Your task to perform on an android device: Forward the most recent email from tau.zachbrennan.1654798856748@gmail.com to: tau.kellybrennan.1654798856748@gmail.com. Image 0: 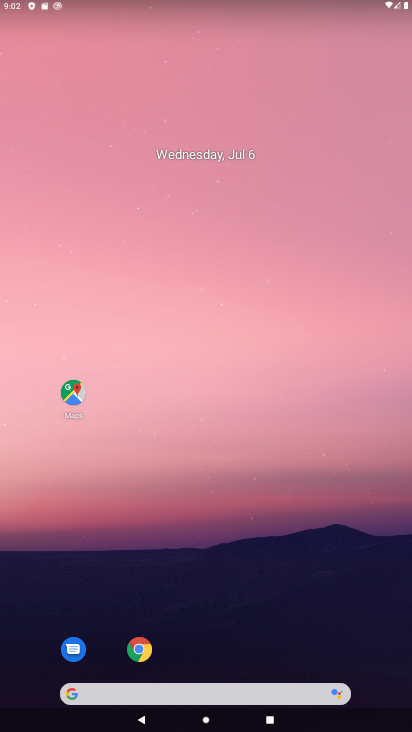
Step 0: press home button
Your task to perform on an android device: Forward the most recent email from tau.zachbrennan.1654798856748@gmail.com to: tau.kellybrennan.1654798856748@gmail.com. Image 1: 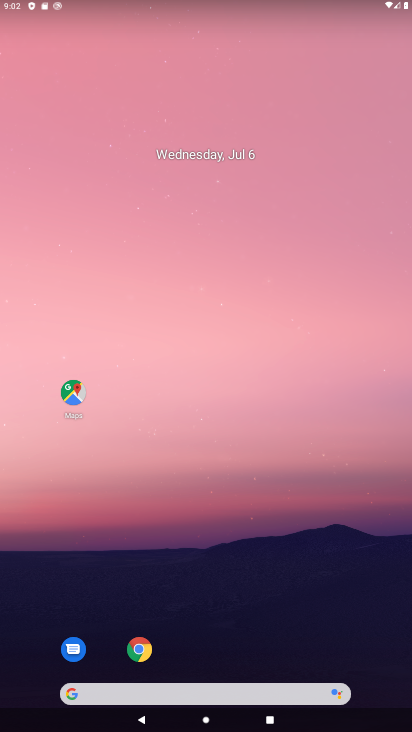
Step 1: drag from (350, 585) to (291, 315)
Your task to perform on an android device: Forward the most recent email from tau.zachbrennan.1654798856748@gmail.com to: tau.kellybrennan.1654798856748@gmail.com. Image 2: 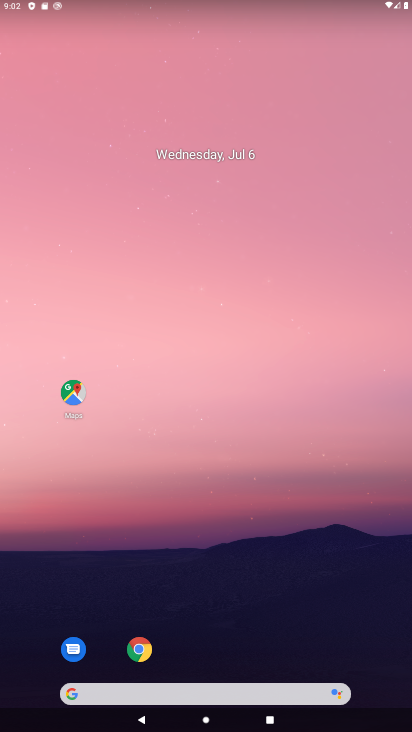
Step 2: drag from (379, 655) to (297, 140)
Your task to perform on an android device: Forward the most recent email from tau.zachbrennan.1654798856748@gmail.com to: tau.kellybrennan.1654798856748@gmail.com. Image 3: 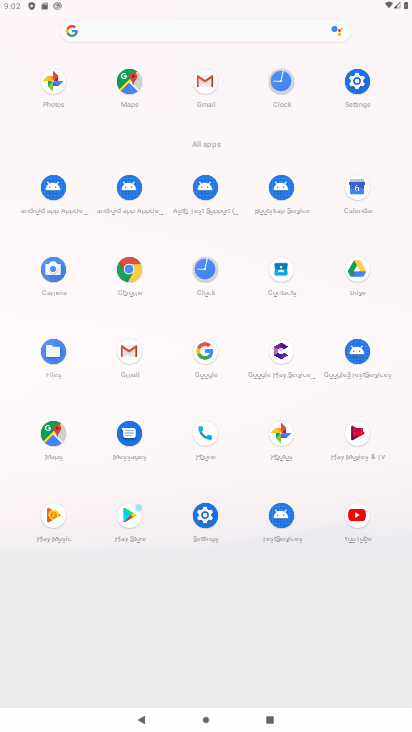
Step 3: click (205, 97)
Your task to perform on an android device: Forward the most recent email from tau.zachbrennan.1654798856748@gmail.com to: tau.kellybrennan.1654798856748@gmail.com. Image 4: 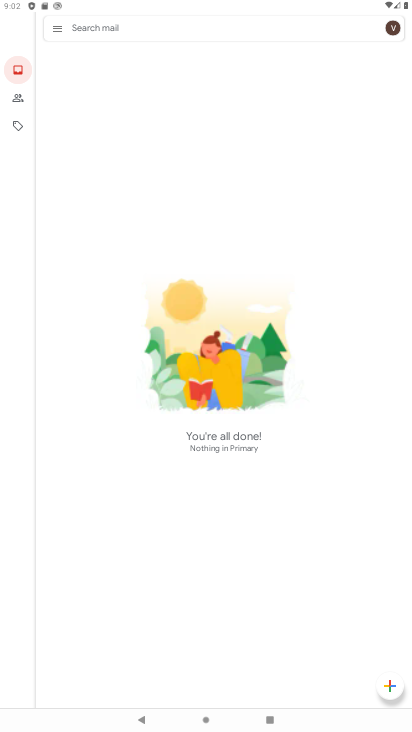
Step 4: task complete